Your task to perform on an android device: Open Chrome and go to settings Image 0: 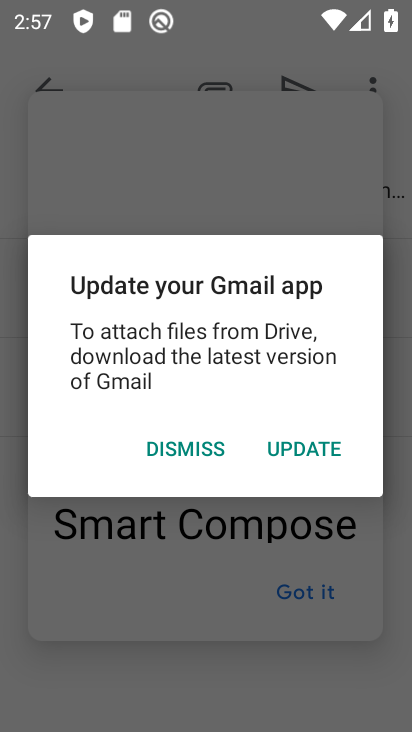
Step 0: press home button
Your task to perform on an android device: Open Chrome and go to settings Image 1: 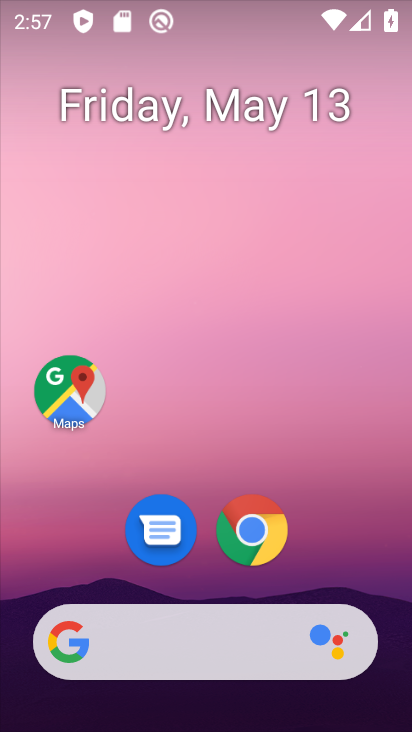
Step 1: click (259, 540)
Your task to perform on an android device: Open Chrome and go to settings Image 2: 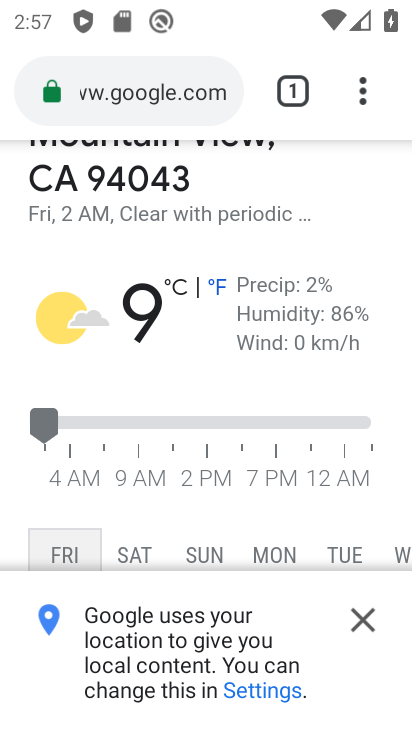
Step 2: click (366, 81)
Your task to perform on an android device: Open Chrome and go to settings Image 3: 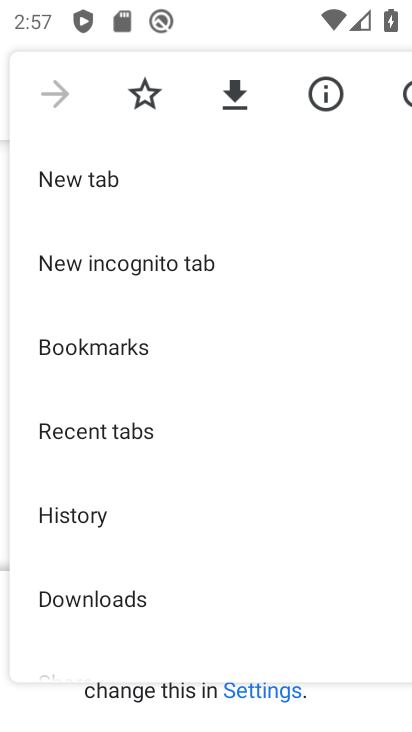
Step 3: drag from (136, 560) to (247, 71)
Your task to perform on an android device: Open Chrome and go to settings Image 4: 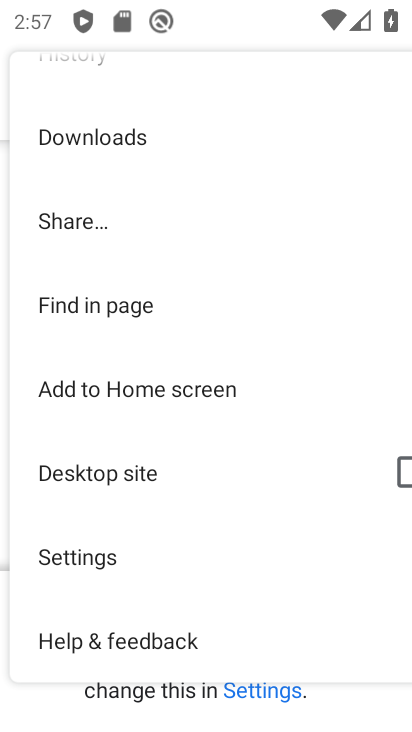
Step 4: click (97, 543)
Your task to perform on an android device: Open Chrome and go to settings Image 5: 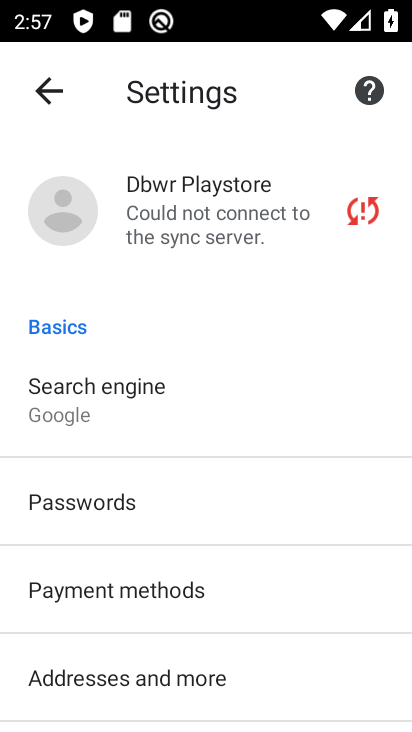
Step 5: task complete